Your task to perform on an android device: turn off picture-in-picture Image 0: 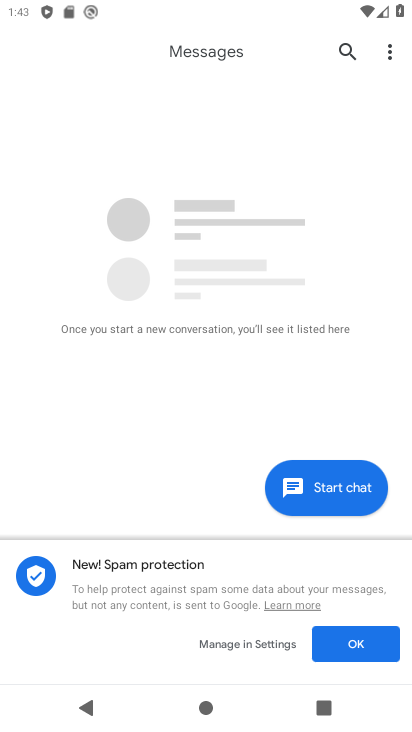
Step 0: press home button
Your task to perform on an android device: turn off picture-in-picture Image 1: 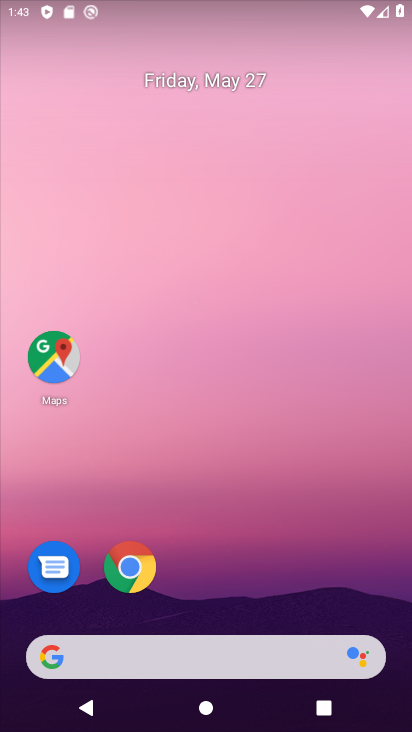
Step 1: click (144, 575)
Your task to perform on an android device: turn off picture-in-picture Image 2: 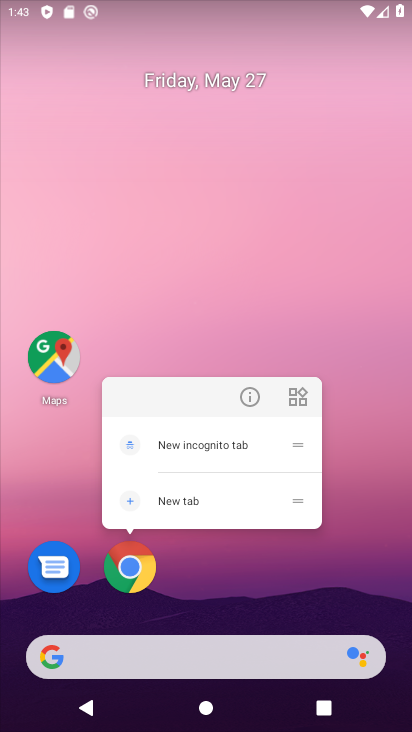
Step 2: click (246, 399)
Your task to perform on an android device: turn off picture-in-picture Image 3: 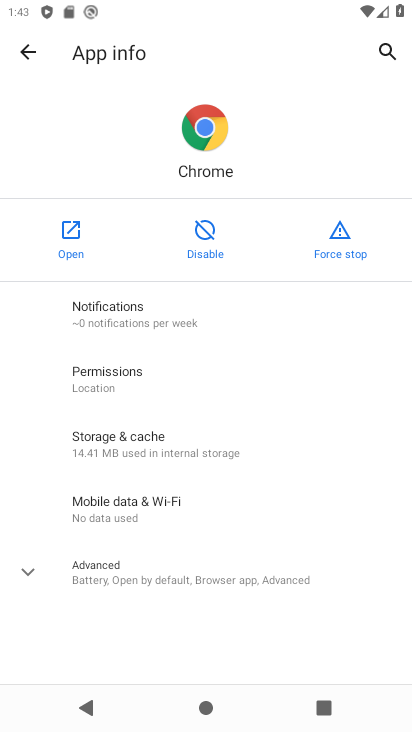
Step 3: click (231, 563)
Your task to perform on an android device: turn off picture-in-picture Image 4: 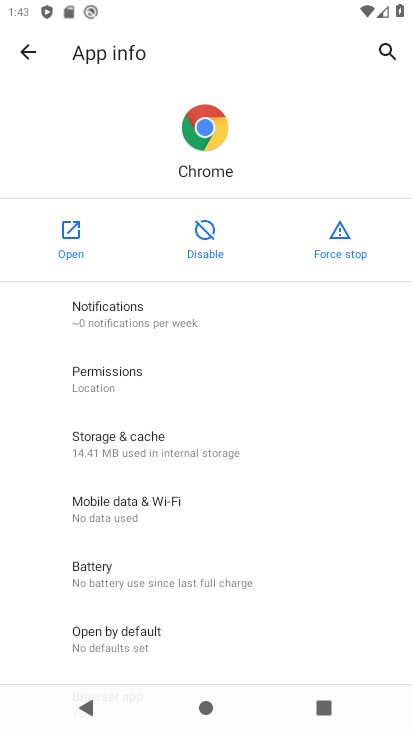
Step 4: drag from (244, 632) to (203, 244)
Your task to perform on an android device: turn off picture-in-picture Image 5: 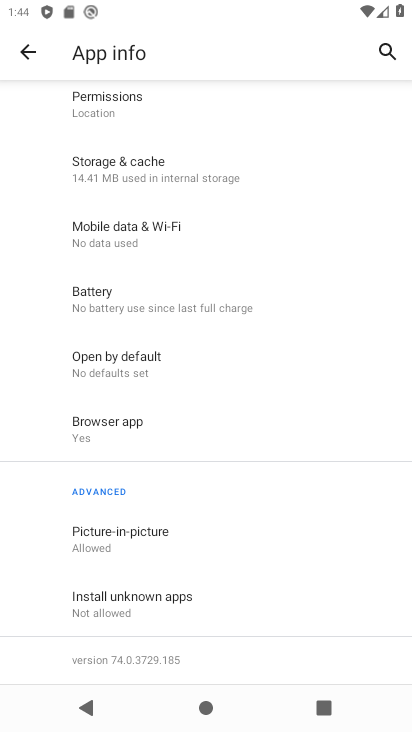
Step 5: click (197, 540)
Your task to perform on an android device: turn off picture-in-picture Image 6: 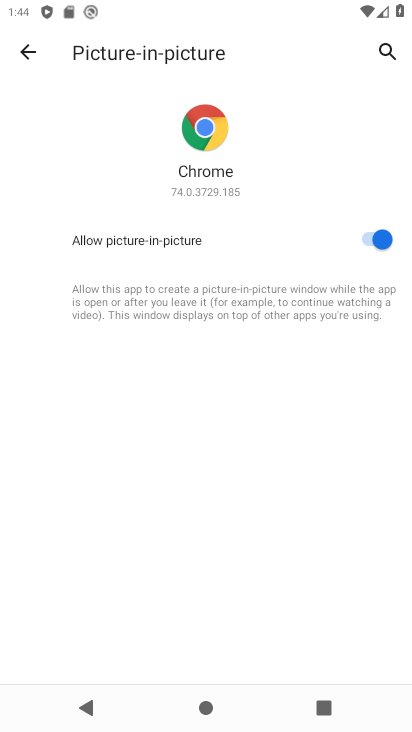
Step 6: click (372, 244)
Your task to perform on an android device: turn off picture-in-picture Image 7: 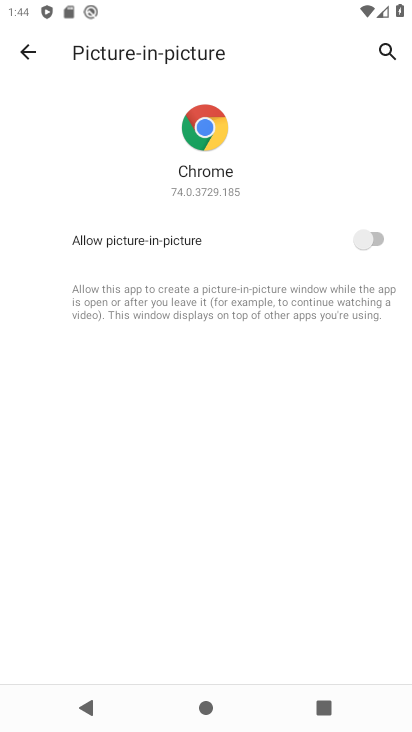
Step 7: task complete